Your task to perform on an android device: Go to Google Image 0: 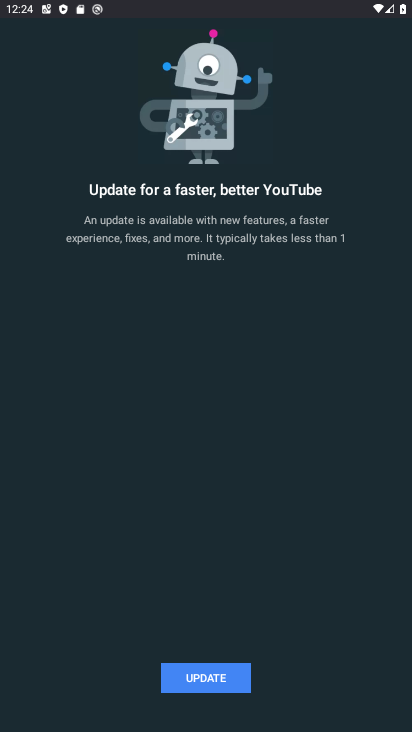
Step 0: press home button
Your task to perform on an android device: Go to Google Image 1: 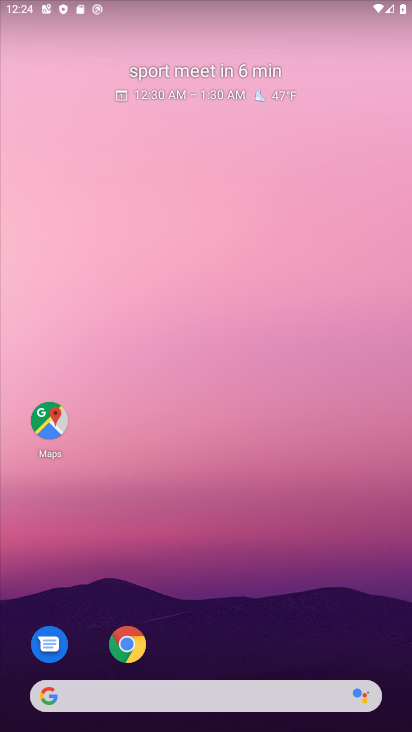
Step 1: drag from (158, 588) to (264, 152)
Your task to perform on an android device: Go to Google Image 2: 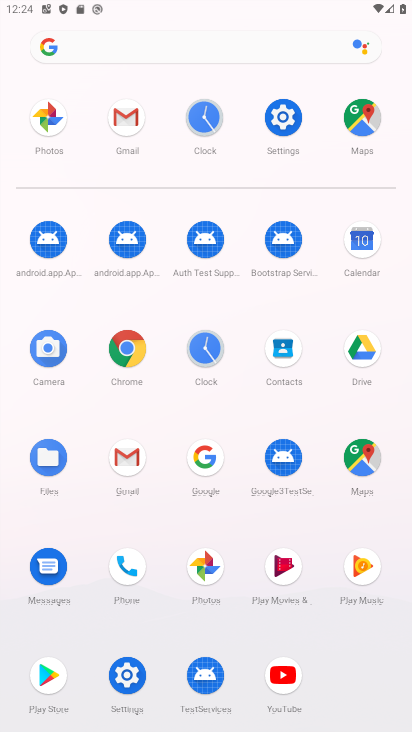
Step 2: click (212, 463)
Your task to perform on an android device: Go to Google Image 3: 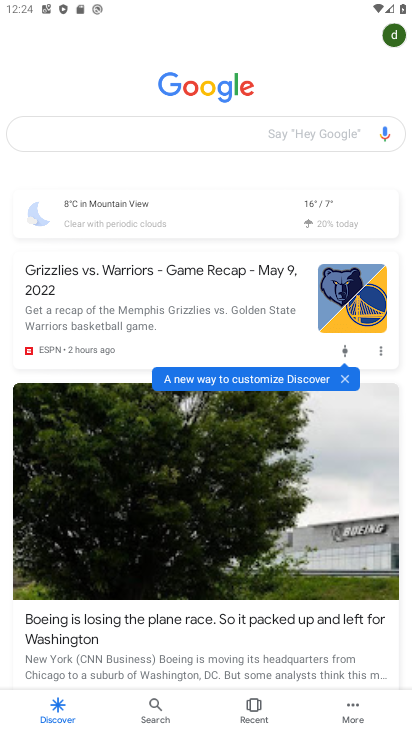
Step 3: task complete